Your task to perform on an android device: check data usage Image 0: 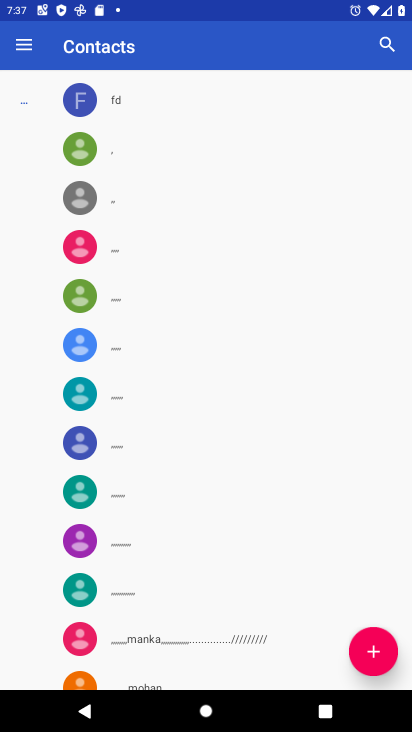
Step 0: press home button
Your task to perform on an android device: check data usage Image 1: 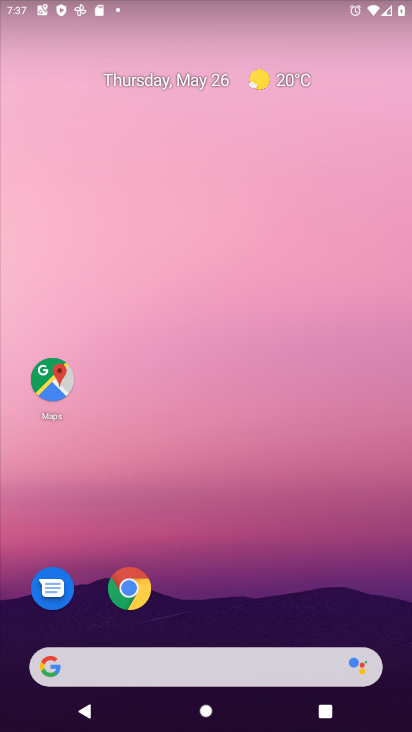
Step 1: drag from (386, 617) to (286, 64)
Your task to perform on an android device: check data usage Image 2: 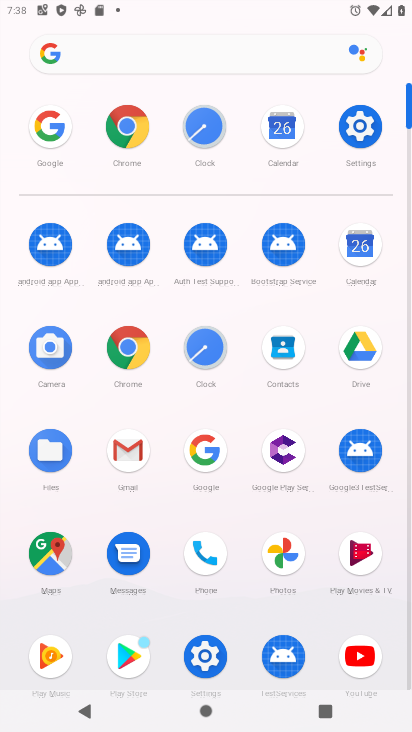
Step 2: click (201, 666)
Your task to perform on an android device: check data usage Image 3: 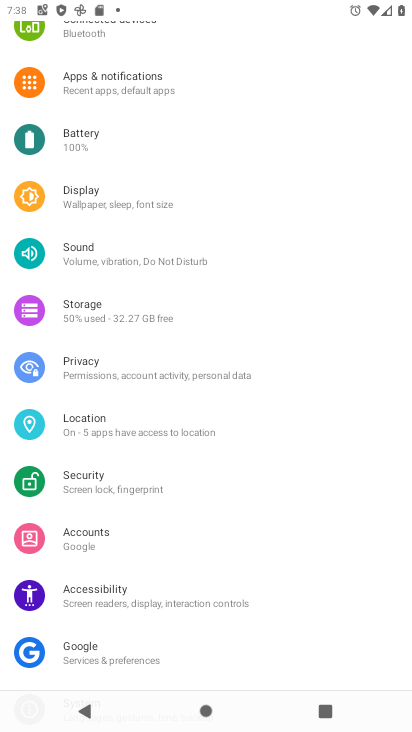
Step 3: drag from (292, 143) to (278, 712)
Your task to perform on an android device: check data usage Image 4: 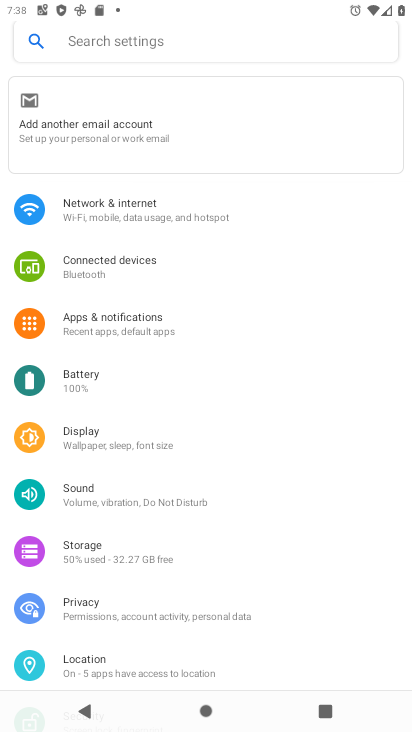
Step 4: click (186, 230)
Your task to perform on an android device: check data usage Image 5: 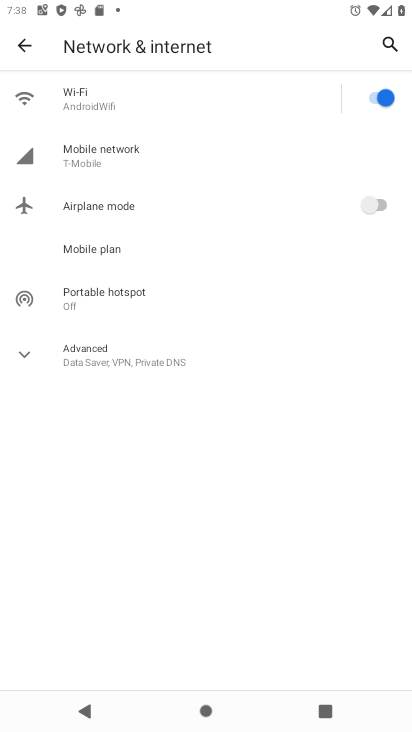
Step 5: click (135, 165)
Your task to perform on an android device: check data usage Image 6: 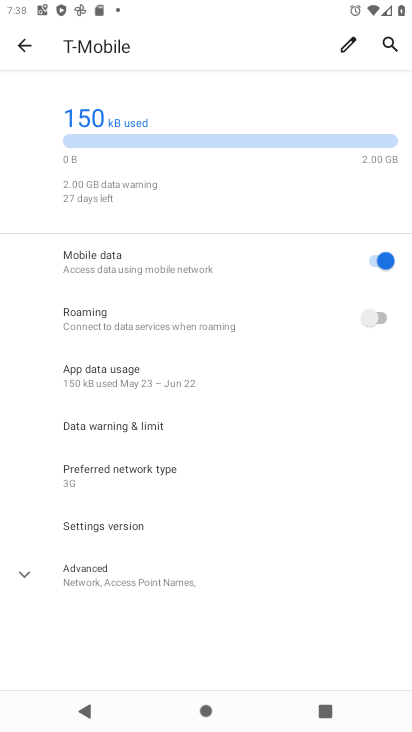
Step 6: click (131, 378)
Your task to perform on an android device: check data usage Image 7: 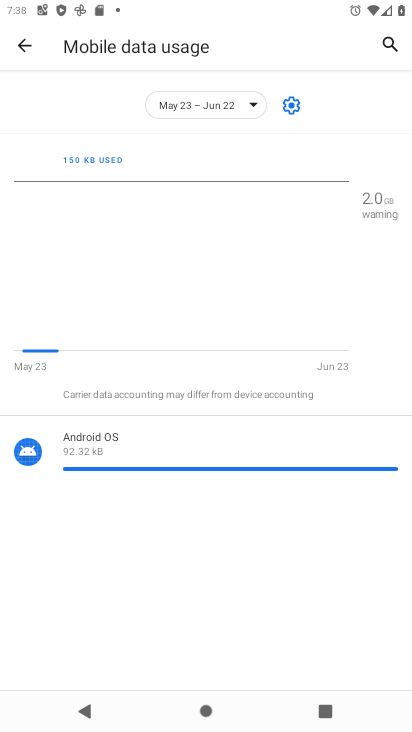
Step 7: task complete